Your task to perform on an android device: turn off translation in the chrome app Image 0: 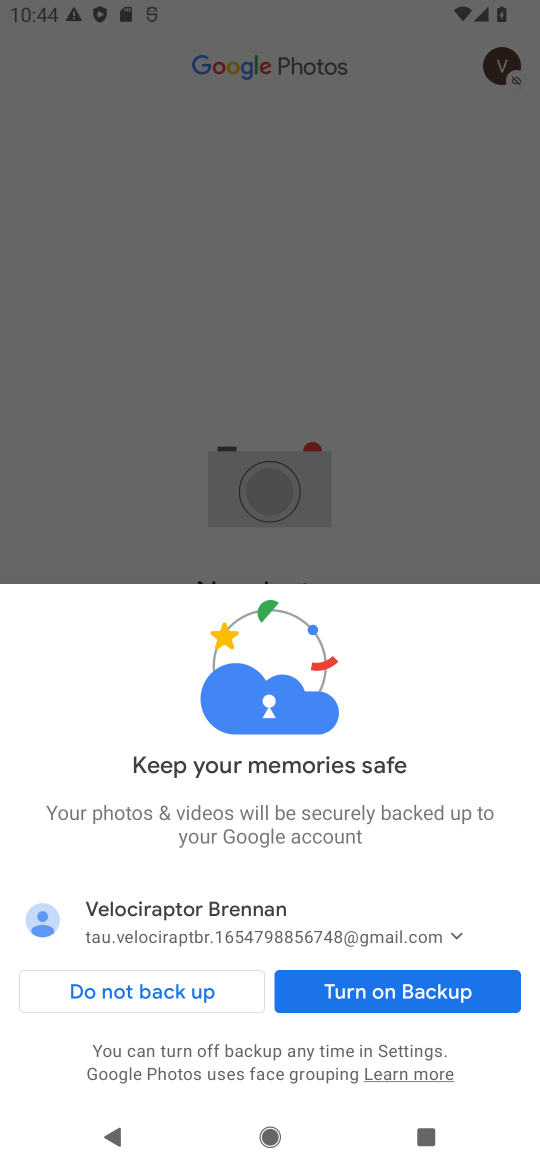
Step 0: press home button
Your task to perform on an android device: turn off translation in the chrome app Image 1: 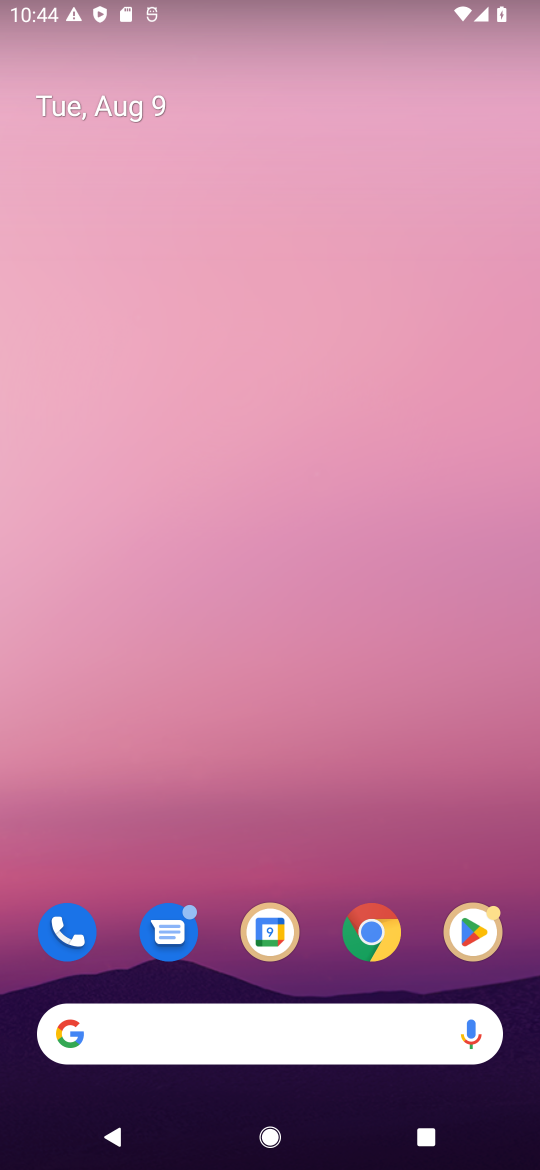
Step 1: click (368, 942)
Your task to perform on an android device: turn off translation in the chrome app Image 2: 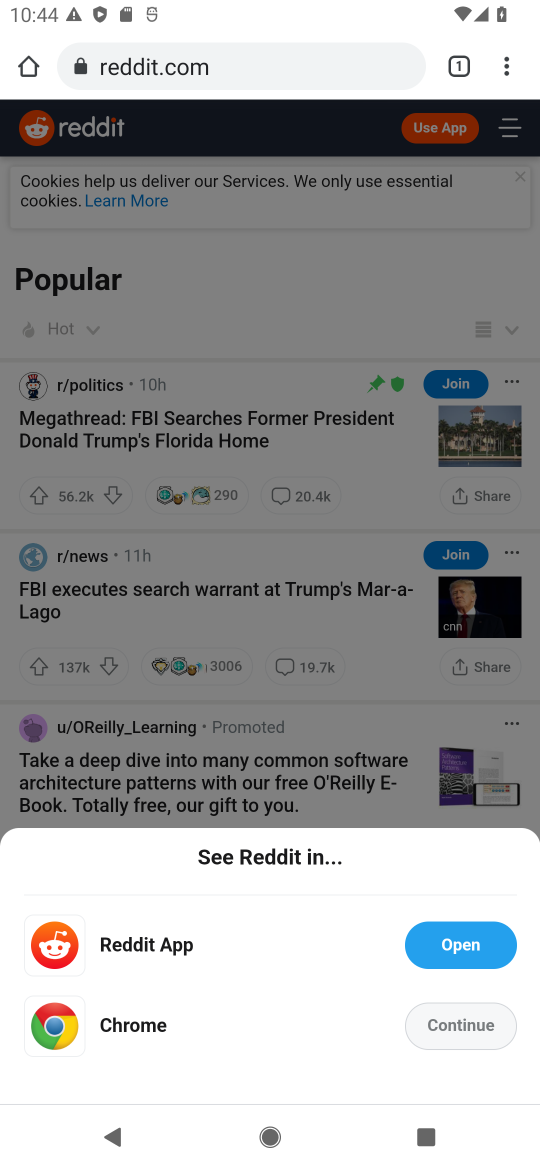
Step 2: click (505, 53)
Your task to perform on an android device: turn off translation in the chrome app Image 3: 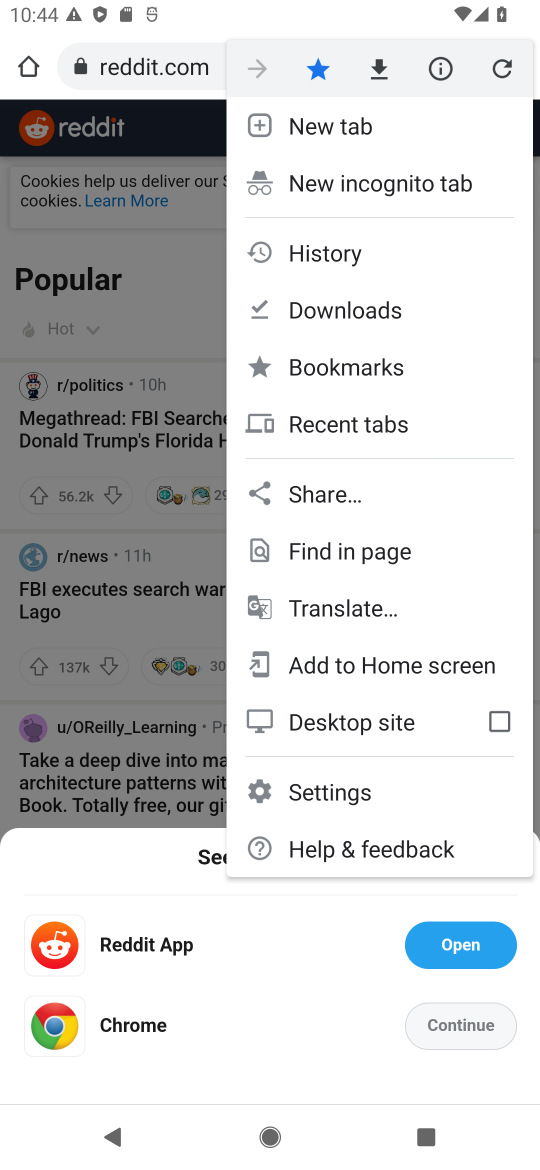
Step 3: click (324, 791)
Your task to perform on an android device: turn off translation in the chrome app Image 4: 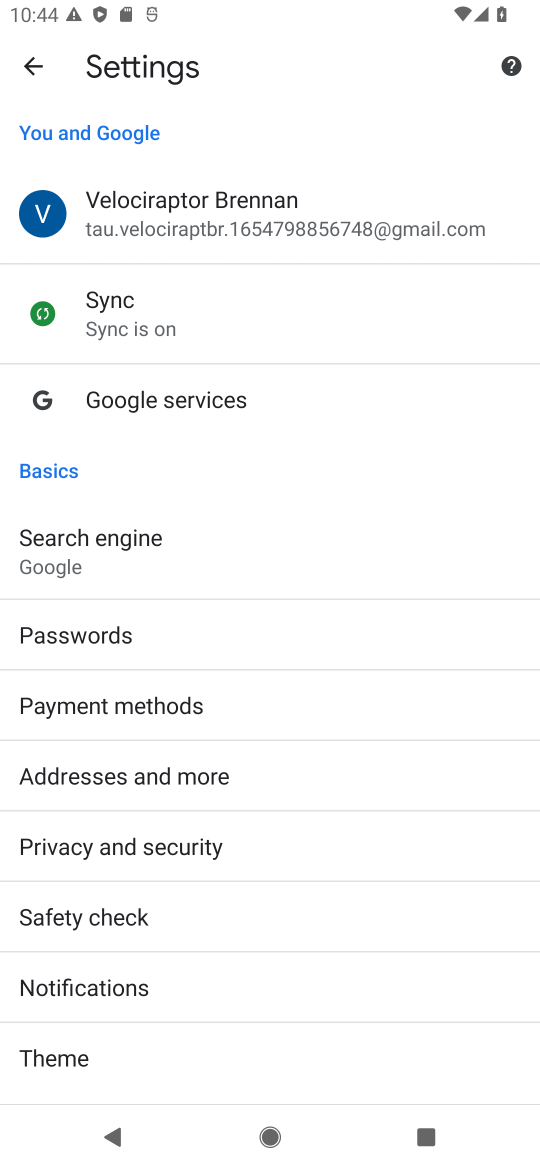
Step 4: drag from (137, 913) to (190, 548)
Your task to perform on an android device: turn off translation in the chrome app Image 5: 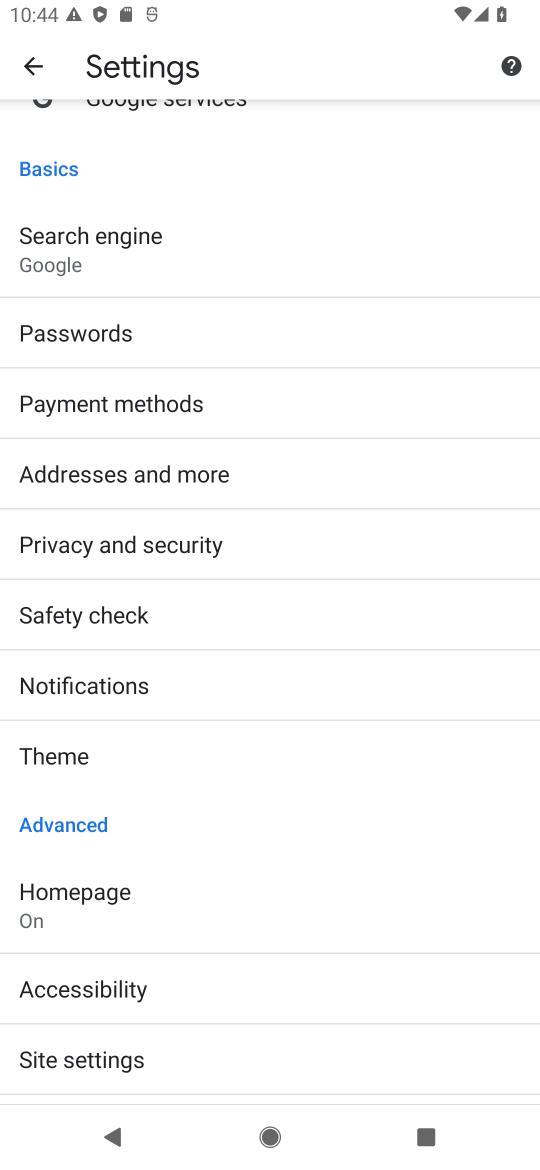
Step 5: drag from (156, 869) to (187, 432)
Your task to perform on an android device: turn off translation in the chrome app Image 6: 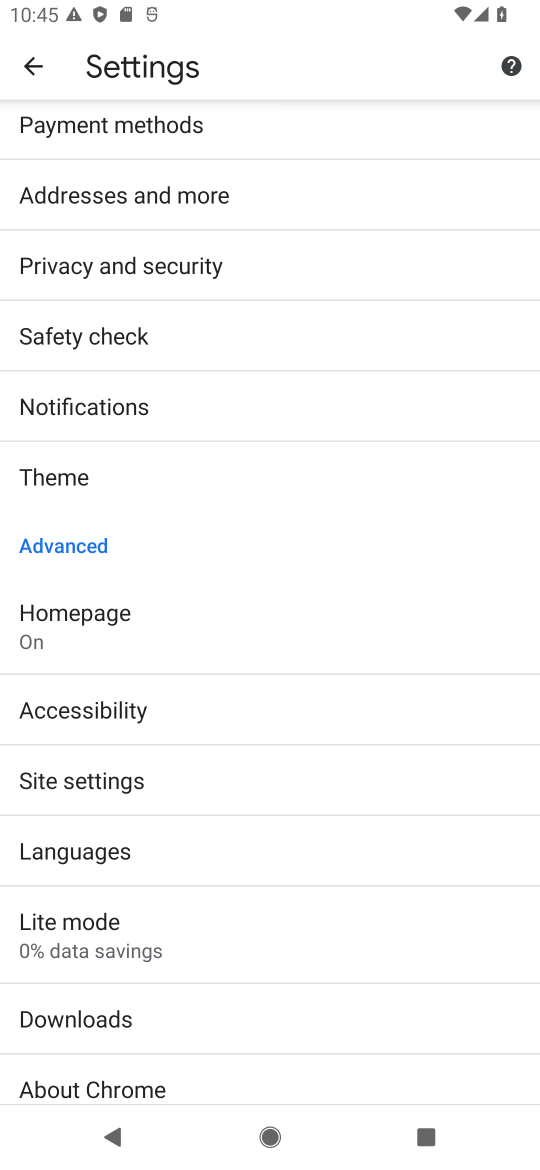
Step 6: click (86, 859)
Your task to perform on an android device: turn off translation in the chrome app Image 7: 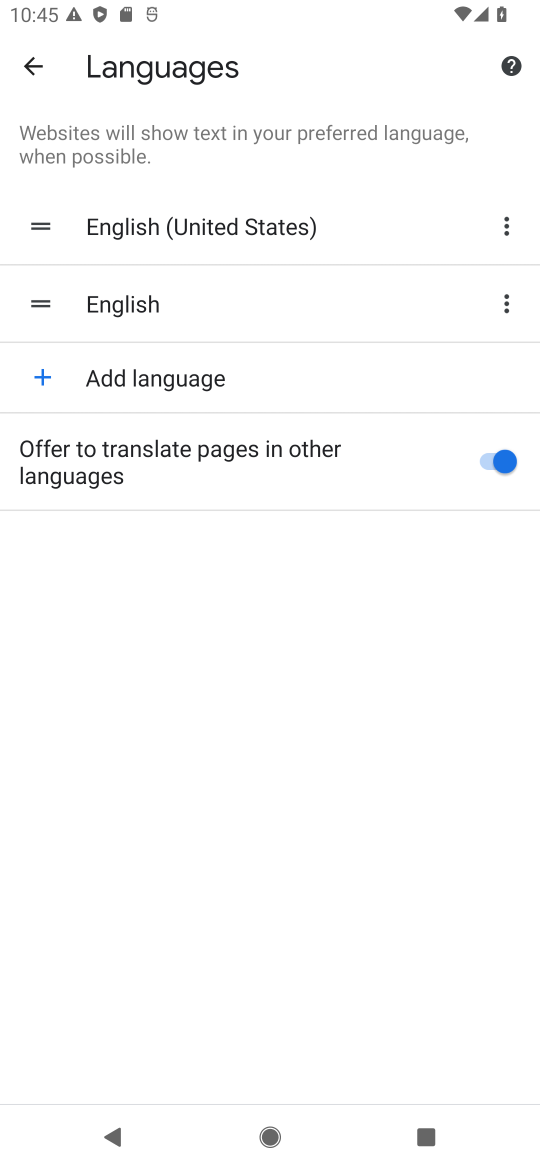
Step 7: click (466, 453)
Your task to perform on an android device: turn off translation in the chrome app Image 8: 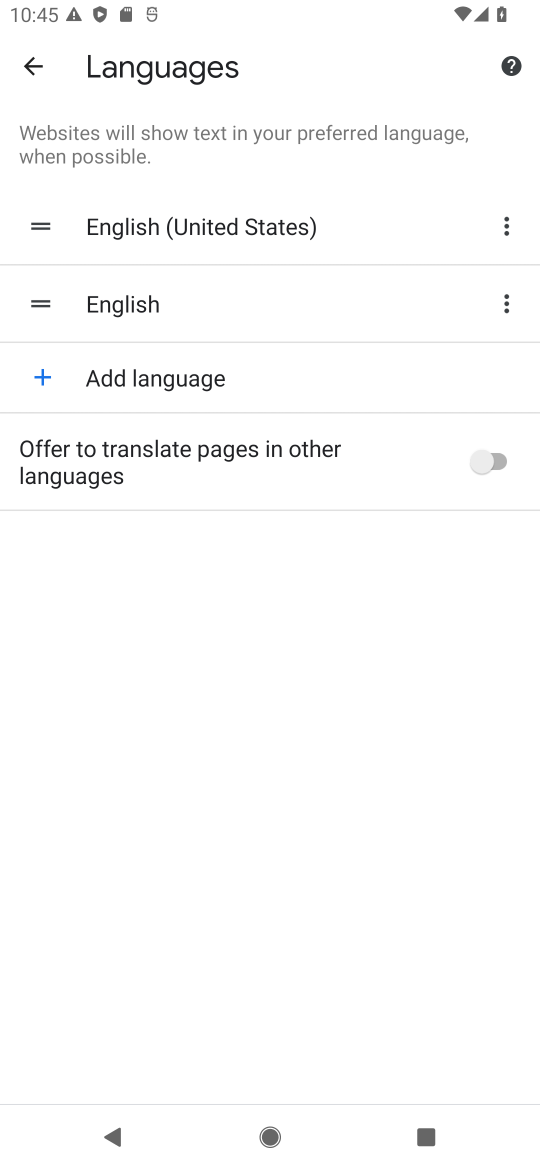
Step 8: task complete